Your task to perform on an android device: toggle improve location accuracy Image 0: 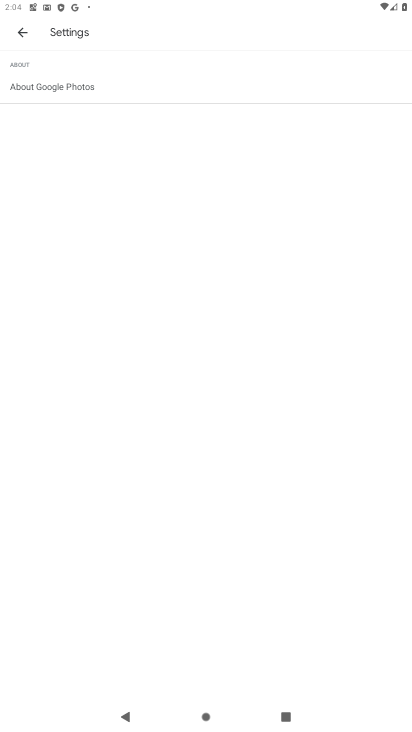
Step 0: task complete